Your task to perform on an android device: change the clock style Image 0: 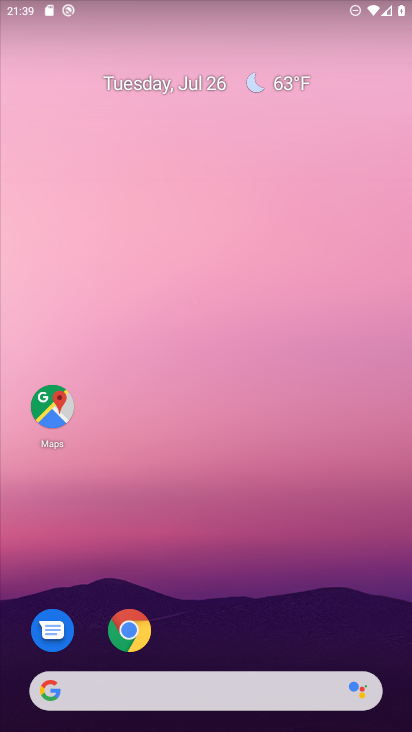
Step 0: drag from (248, 573) to (120, 29)
Your task to perform on an android device: change the clock style Image 1: 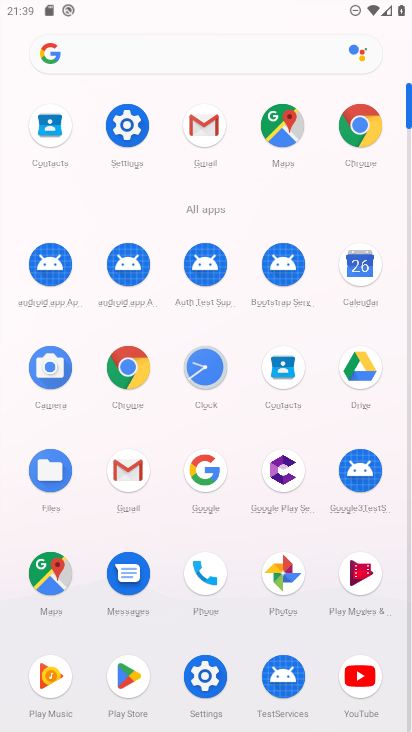
Step 1: click (197, 366)
Your task to perform on an android device: change the clock style Image 2: 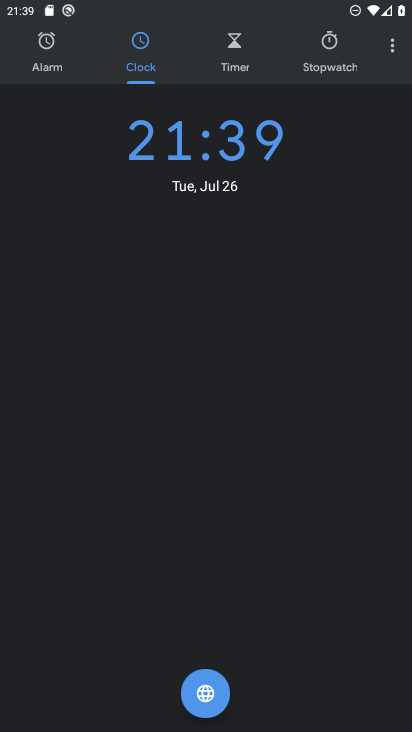
Step 2: click (392, 45)
Your task to perform on an android device: change the clock style Image 3: 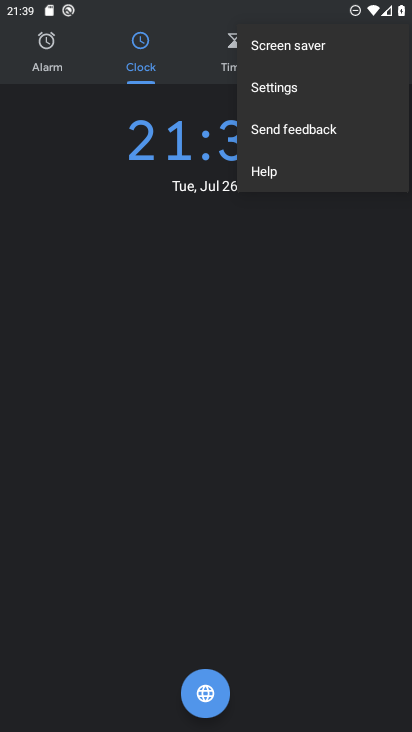
Step 3: click (324, 91)
Your task to perform on an android device: change the clock style Image 4: 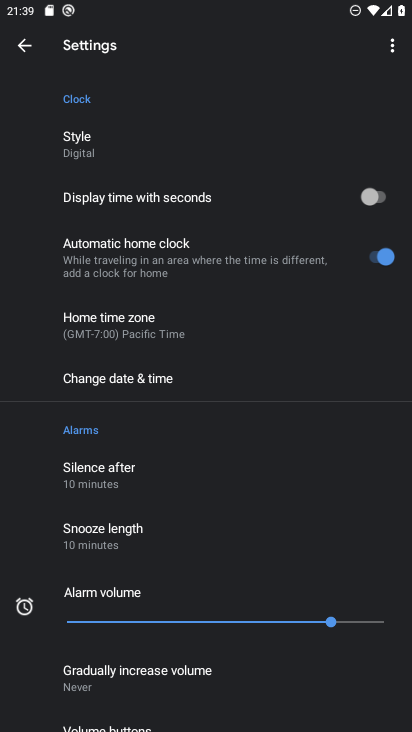
Step 4: click (96, 149)
Your task to perform on an android device: change the clock style Image 5: 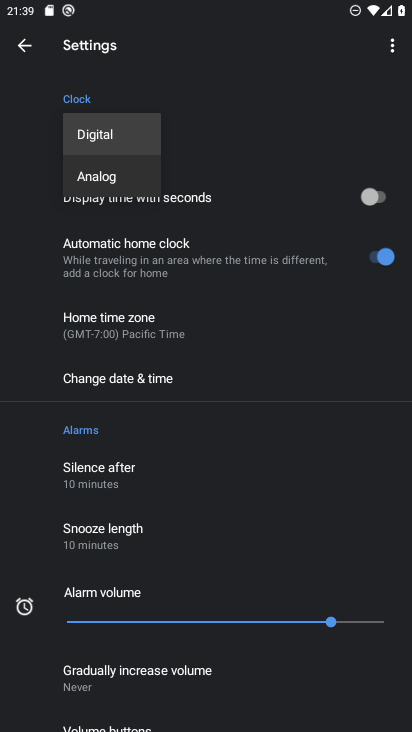
Step 5: click (96, 185)
Your task to perform on an android device: change the clock style Image 6: 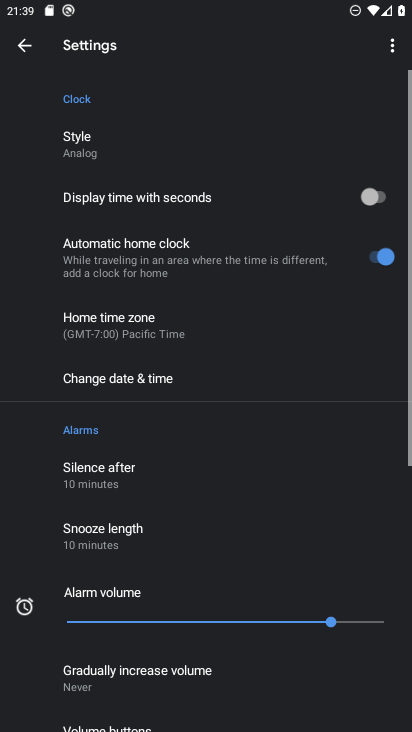
Step 6: task complete